Your task to perform on an android device: toggle translation in the chrome app Image 0: 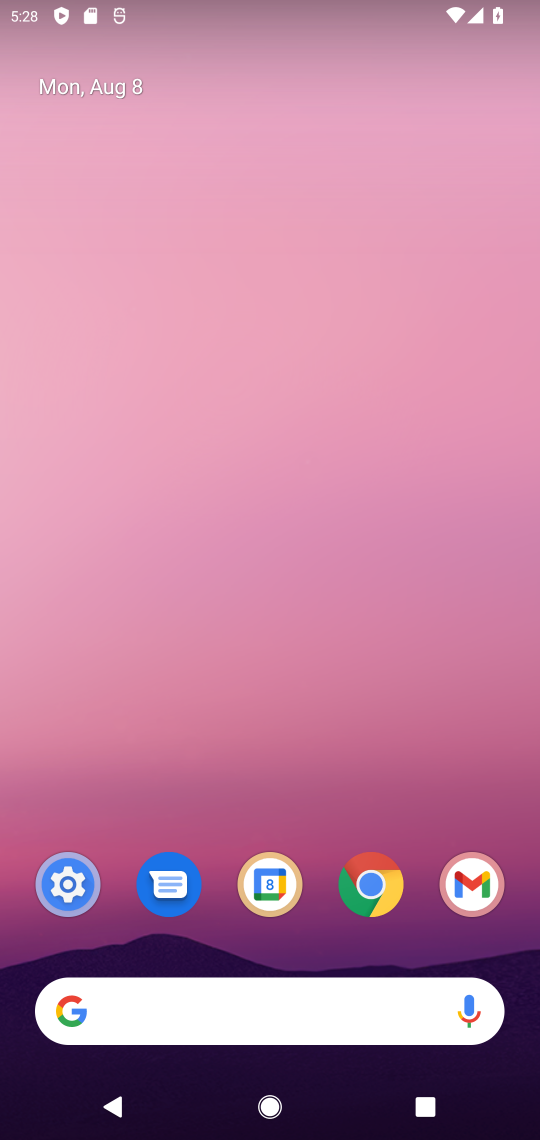
Step 0: click (387, 865)
Your task to perform on an android device: toggle translation in the chrome app Image 1: 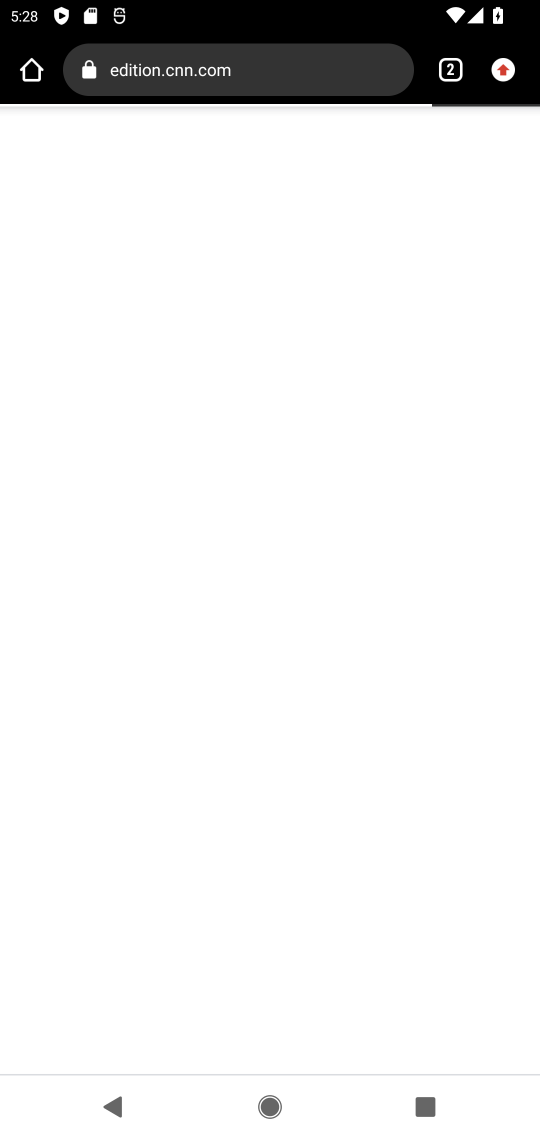
Step 1: click (508, 83)
Your task to perform on an android device: toggle translation in the chrome app Image 2: 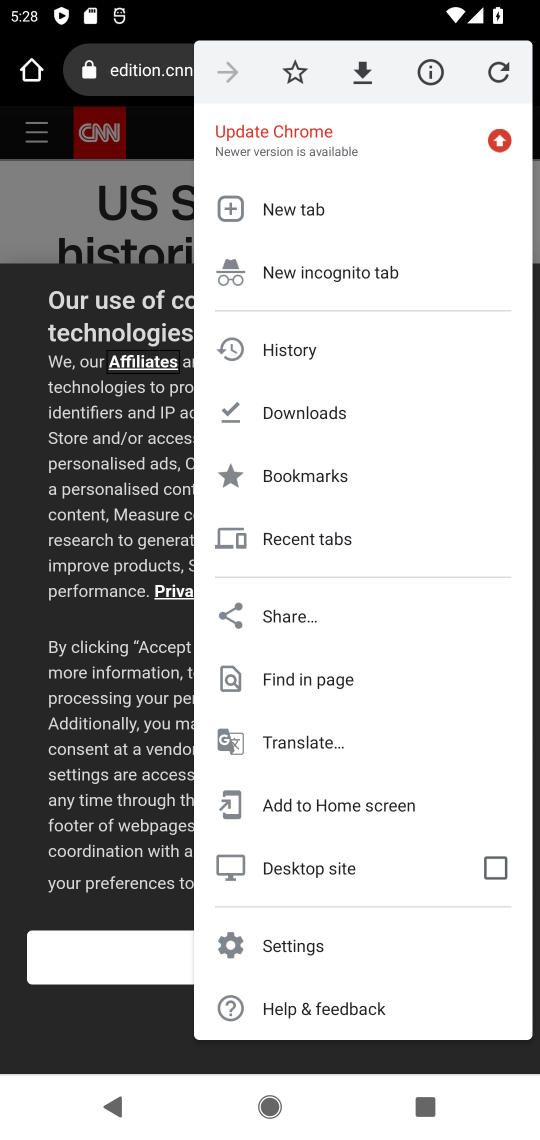
Step 2: click (332, 946)
Your task to perform on an android device: toggle translation in the chrome app Image 3: 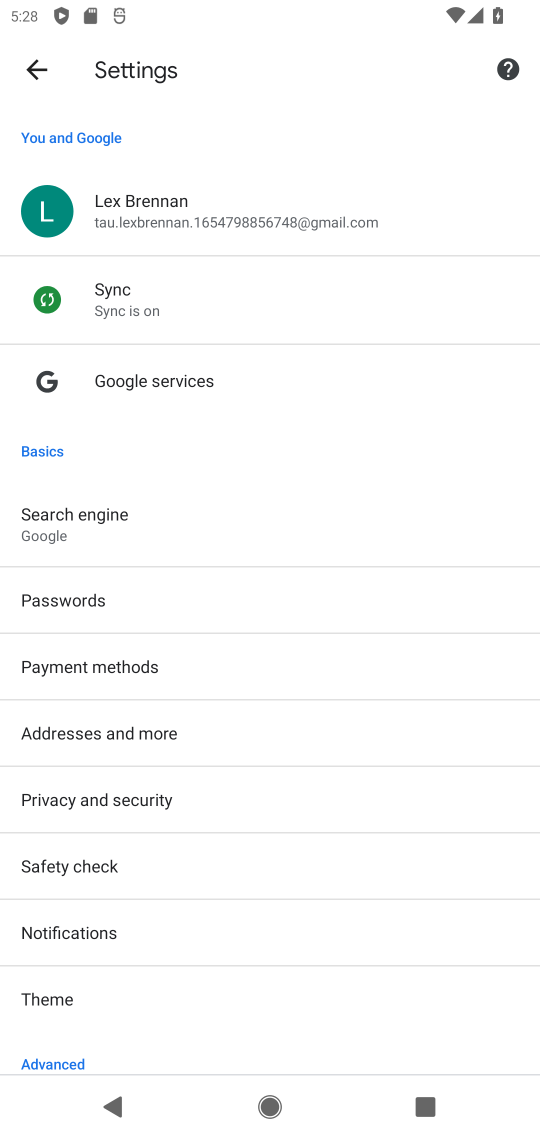
Step 3: drag from (258, 1025) to (178, 345)
Your task to perform on an android device: toggle translation in the chrome app Image 4: 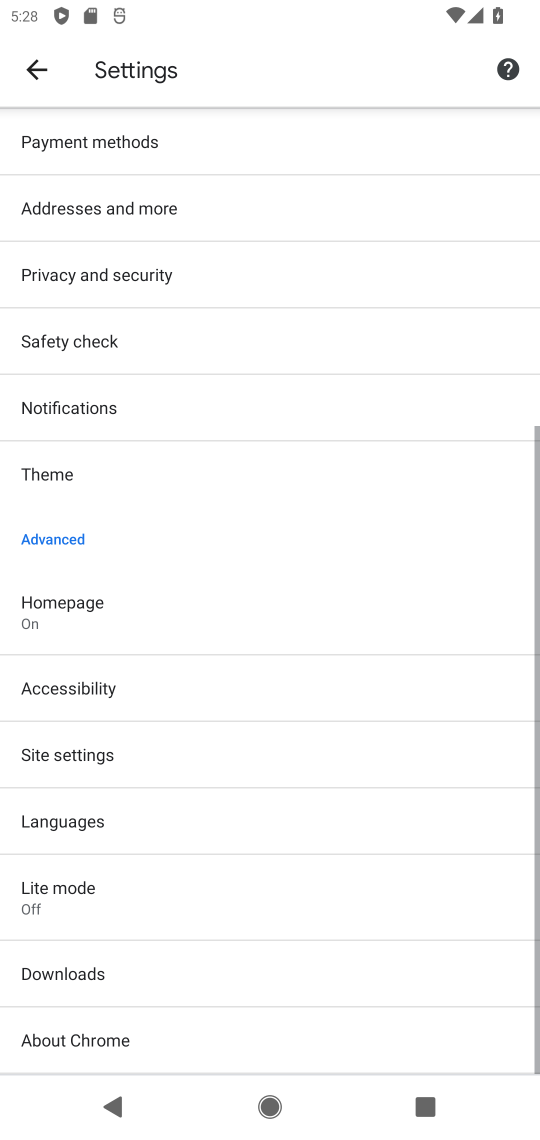
Step 4: click (157, 824)
Your task to perform on an android device: toggle translation in the chrome app Image 5: 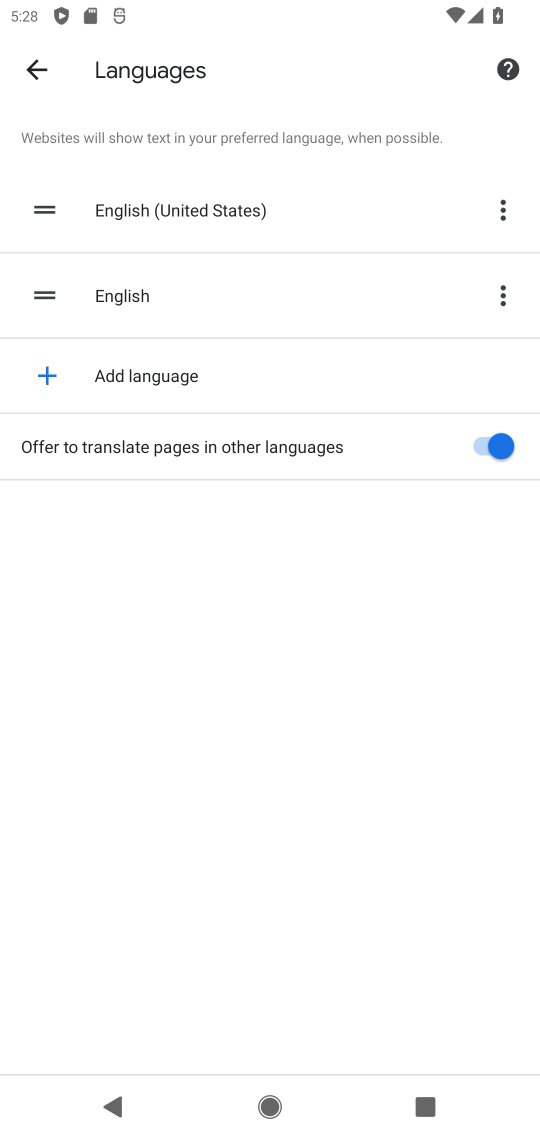
Step 5: click (479, 452)
Your task to perform on an android device: toggle translation in the chrome app Image 6: 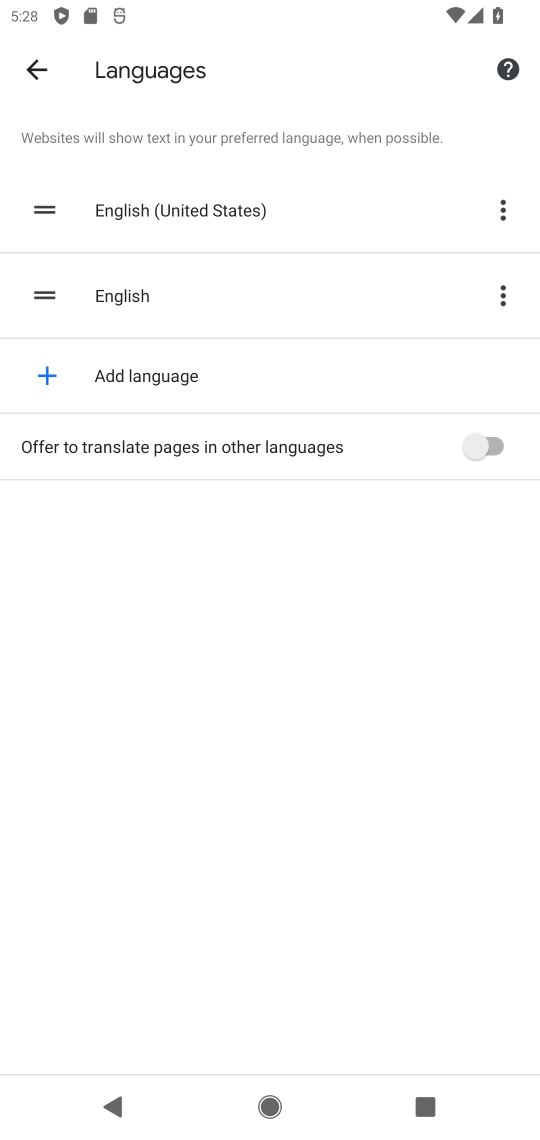
Step 6: task complete